Your task to perform on an android device: See recent photos Image 0: 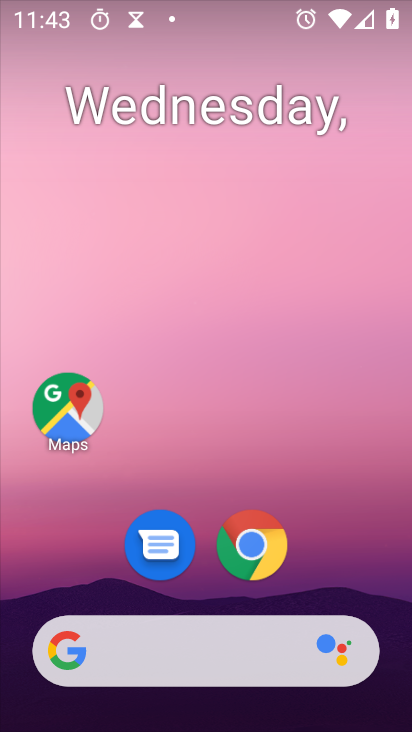
Step 0: press home button
Your task to perform on an android device: See recent photos Image 1: 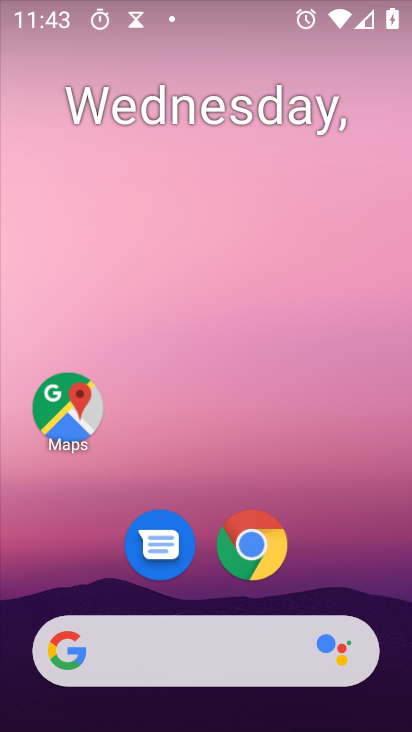
Step 1: drag from (144, 646) to (345, 141)
Your task to perform on an android device: See recent photos Image 2: 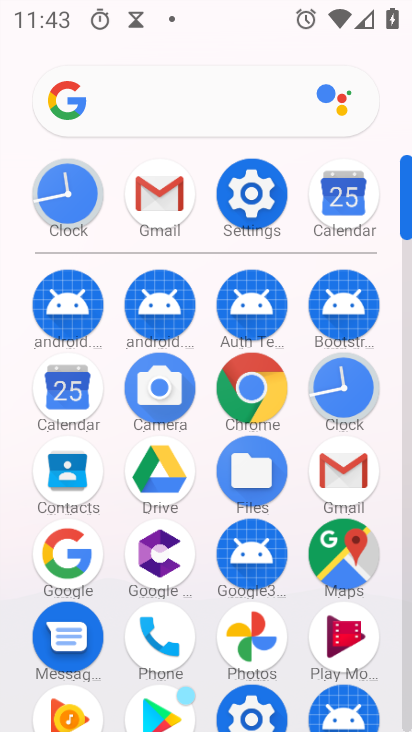
Step 2: click (251, 644)
Your task to perform on an android device: See recent photos Image 3: 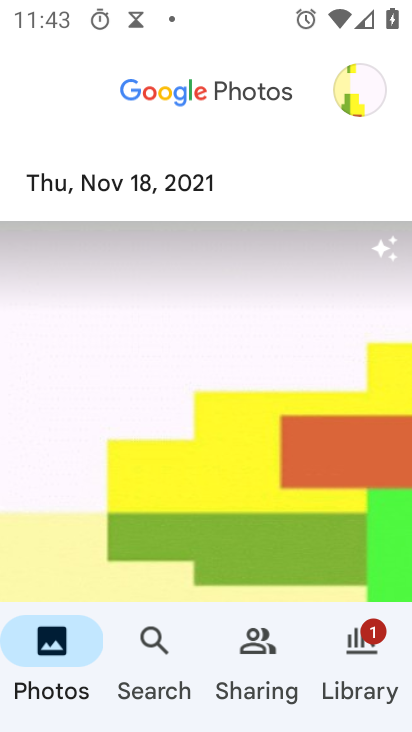
Step 3: click (172, 675)
Your task to perform on an android device: See recent photos Image 4: 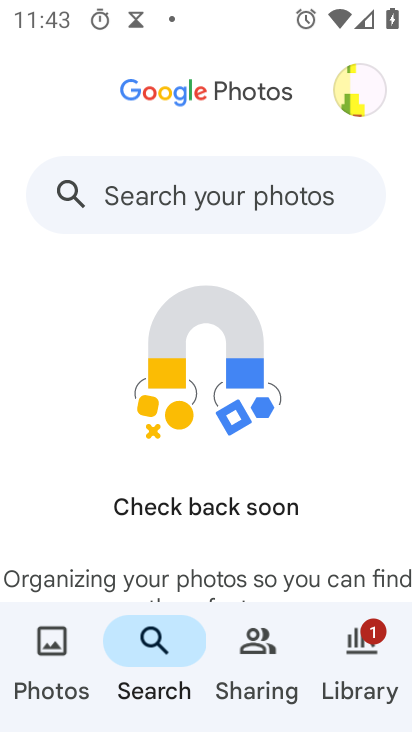
Step 4: drag from (227, 557) to (374, 95)
Your task to perform on an android device: See recent photos Image 5: 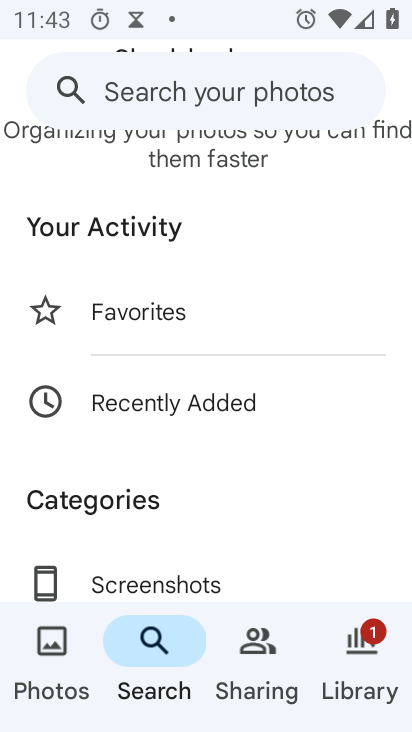
Step 5: click (183, 405)
Your task to perform on an android device: See recent photos Image 6: 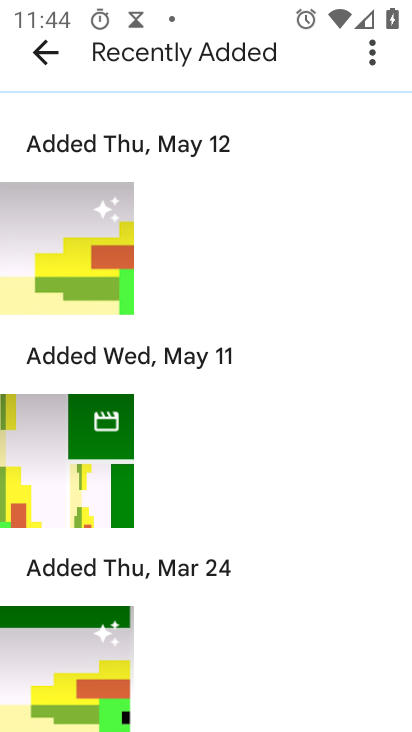
Step 6: task complete